Your task to perform on an android device: toggle show notifications on the lock screen Image 0: 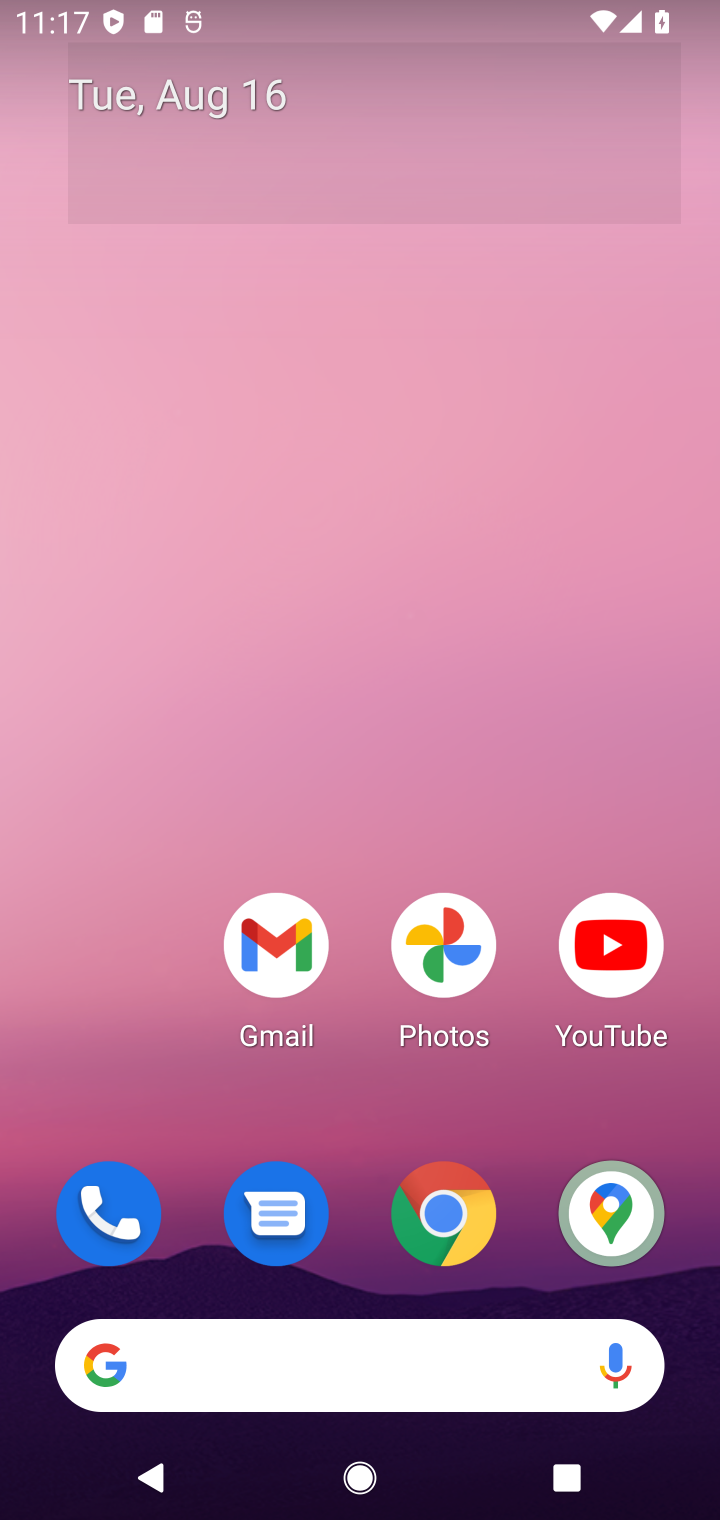
Step 0: drag from (386, 1134) to (424, 91)
Your task to perform on an android device: toggle show notifications on the lock screen Image 1: 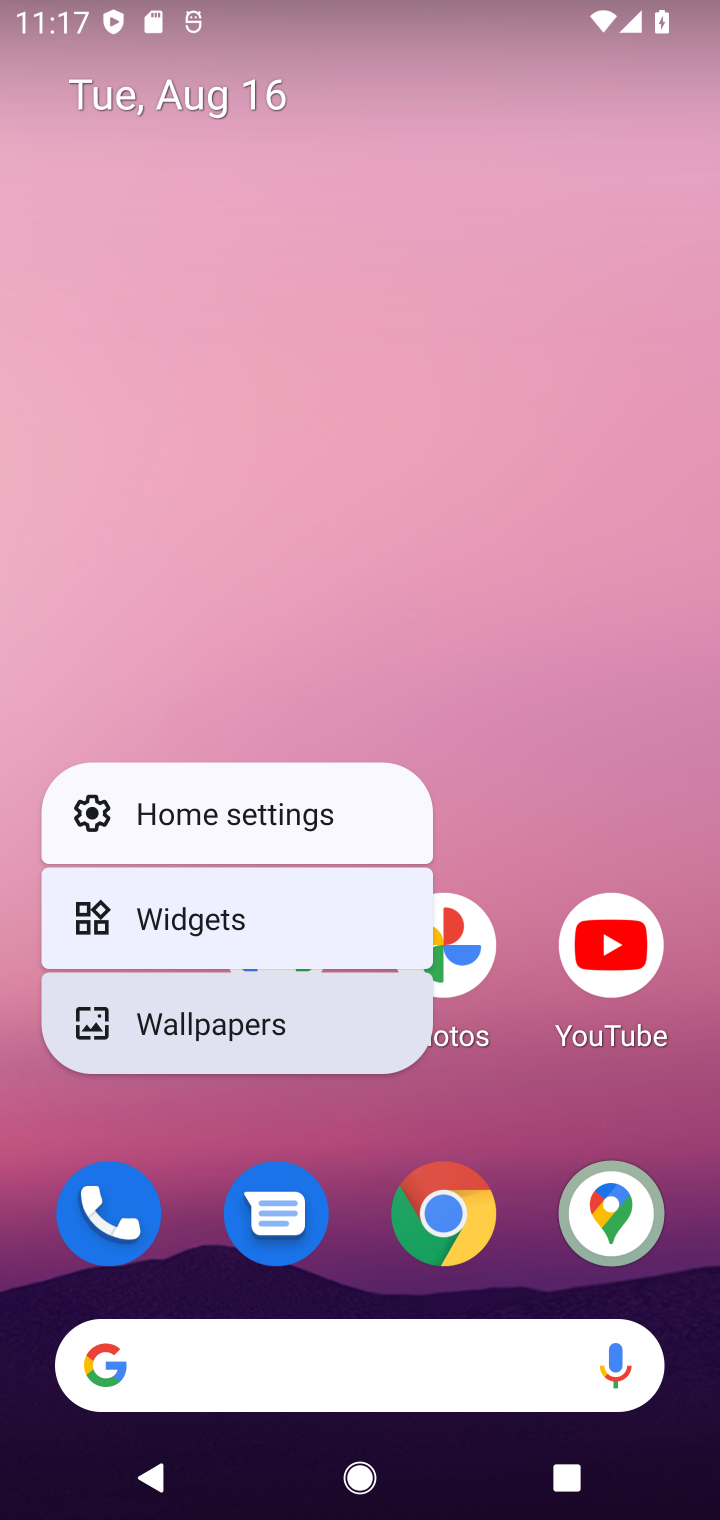
Step 1: click (715, 1032)
Your task to perform on an android device: toggle show notifications on the lock screen Image 2: 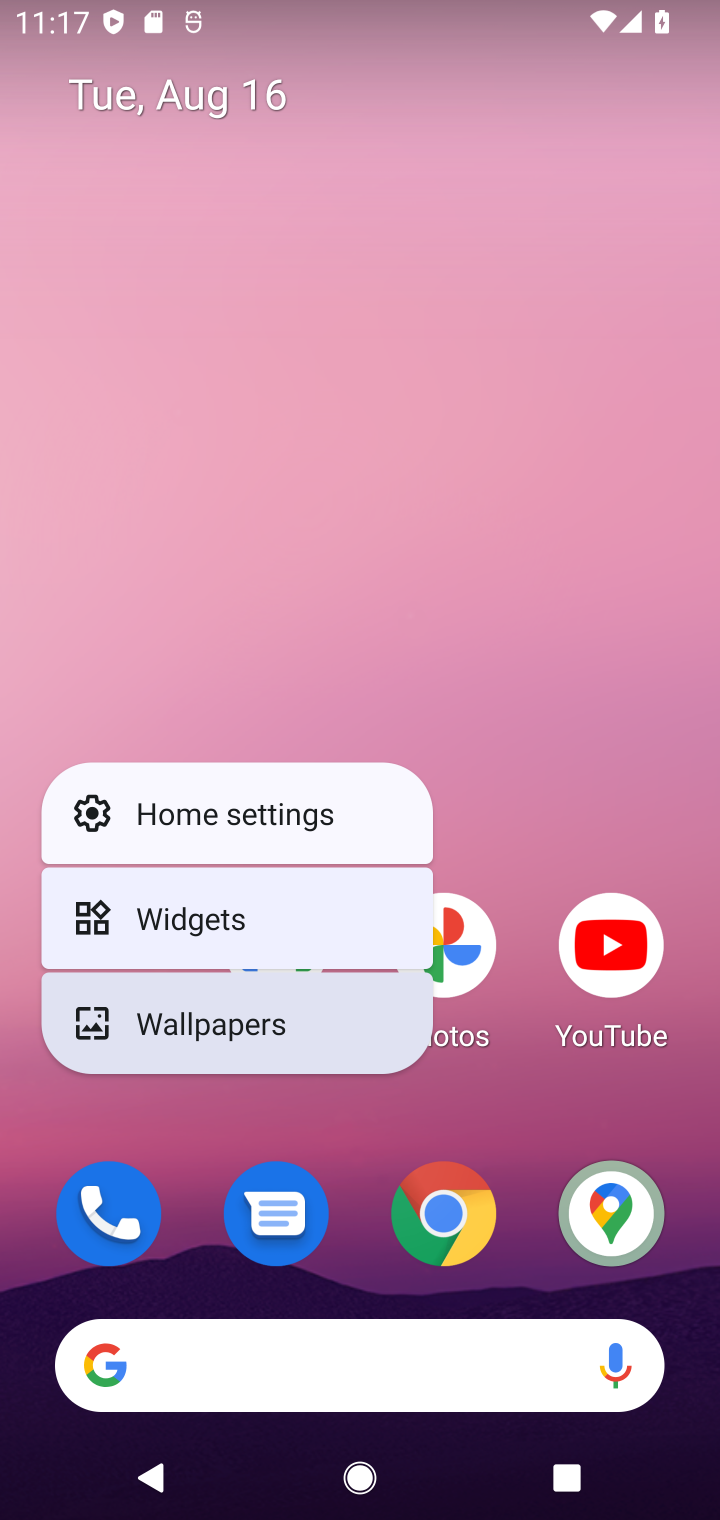
Step 2: click (670, 1080)
Your task to perform on an android device: toggle show notifications on the lock screen Image 3: 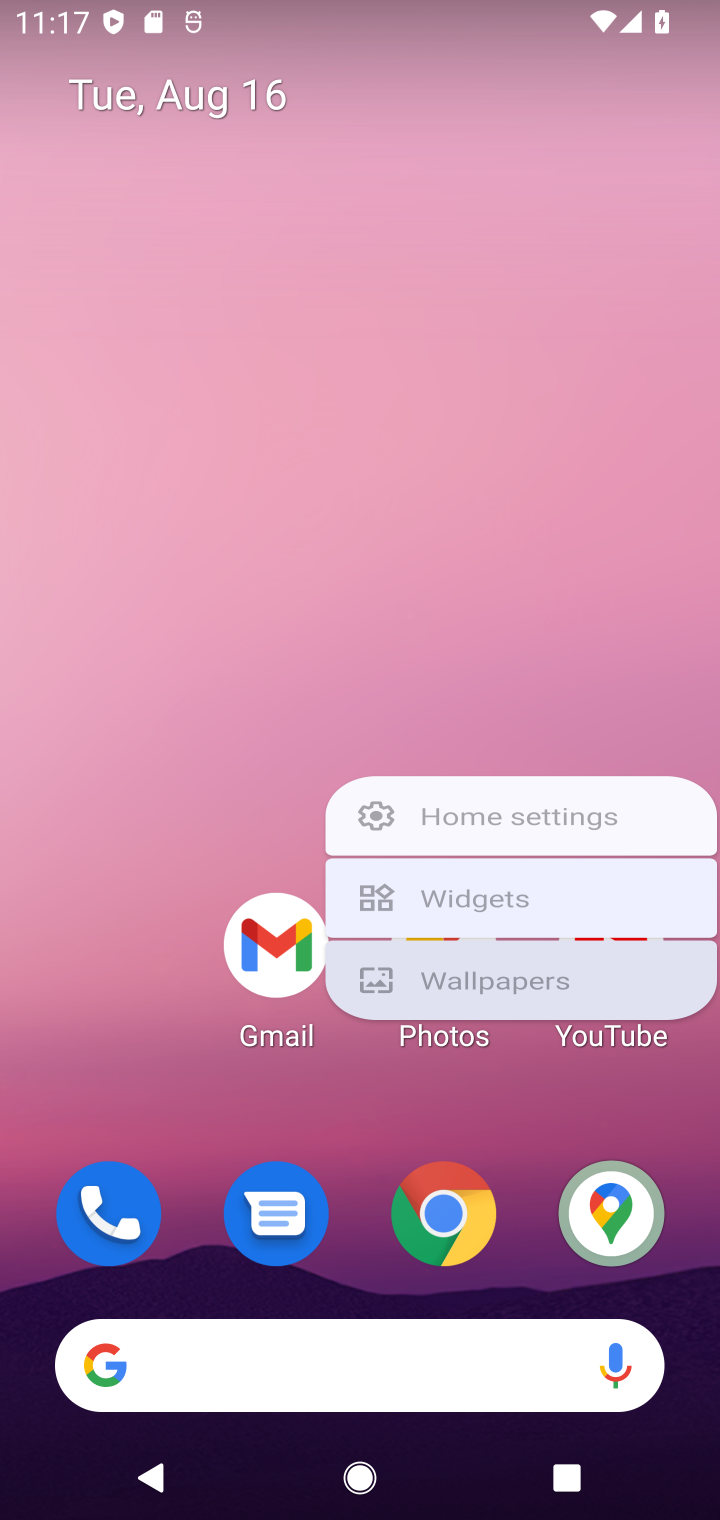
Step 3: click (603, 20)
Your task to perform on an android device: toggle show notifications on the lock screen Image 4: 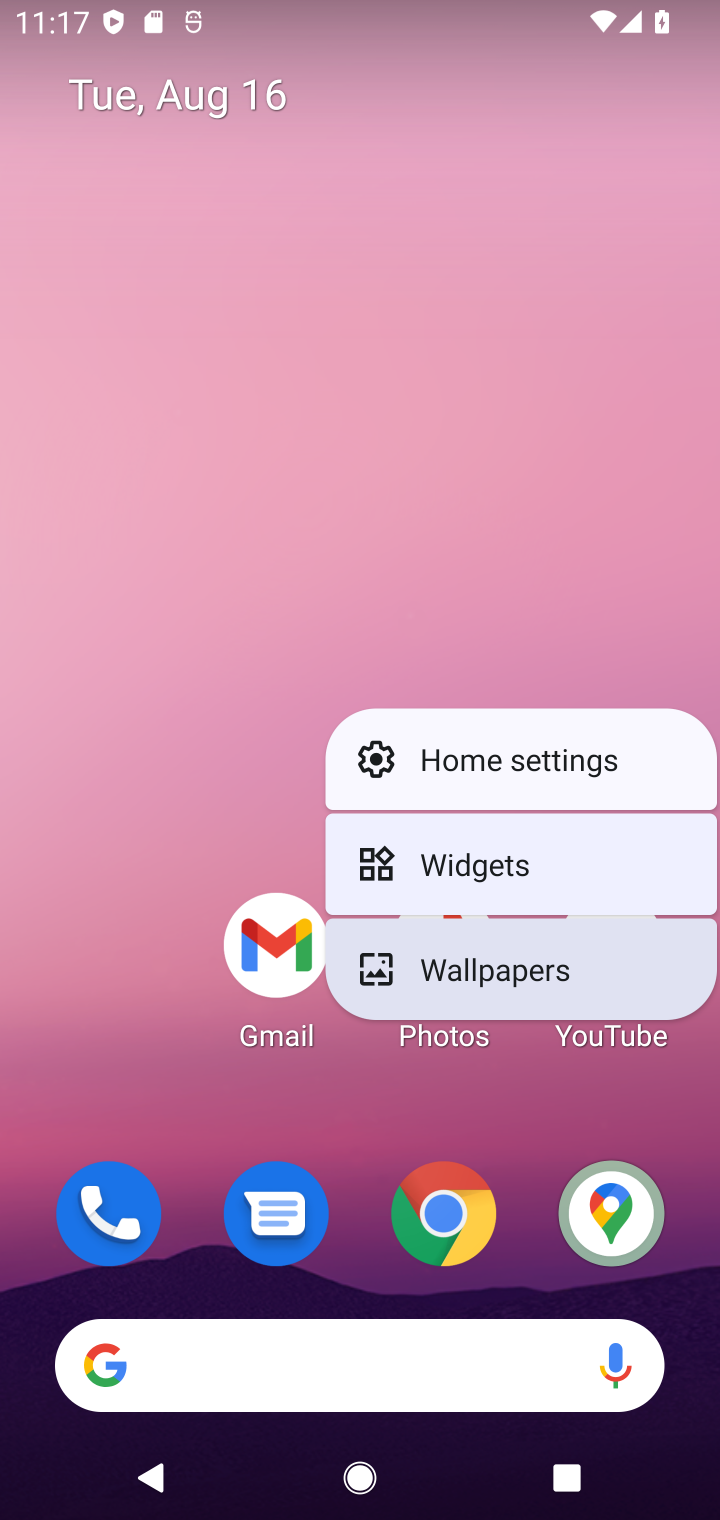
Step 4: click (348, 1090)
Your task to perform on an android device: toggle show notifications on the lock screen Image 5: 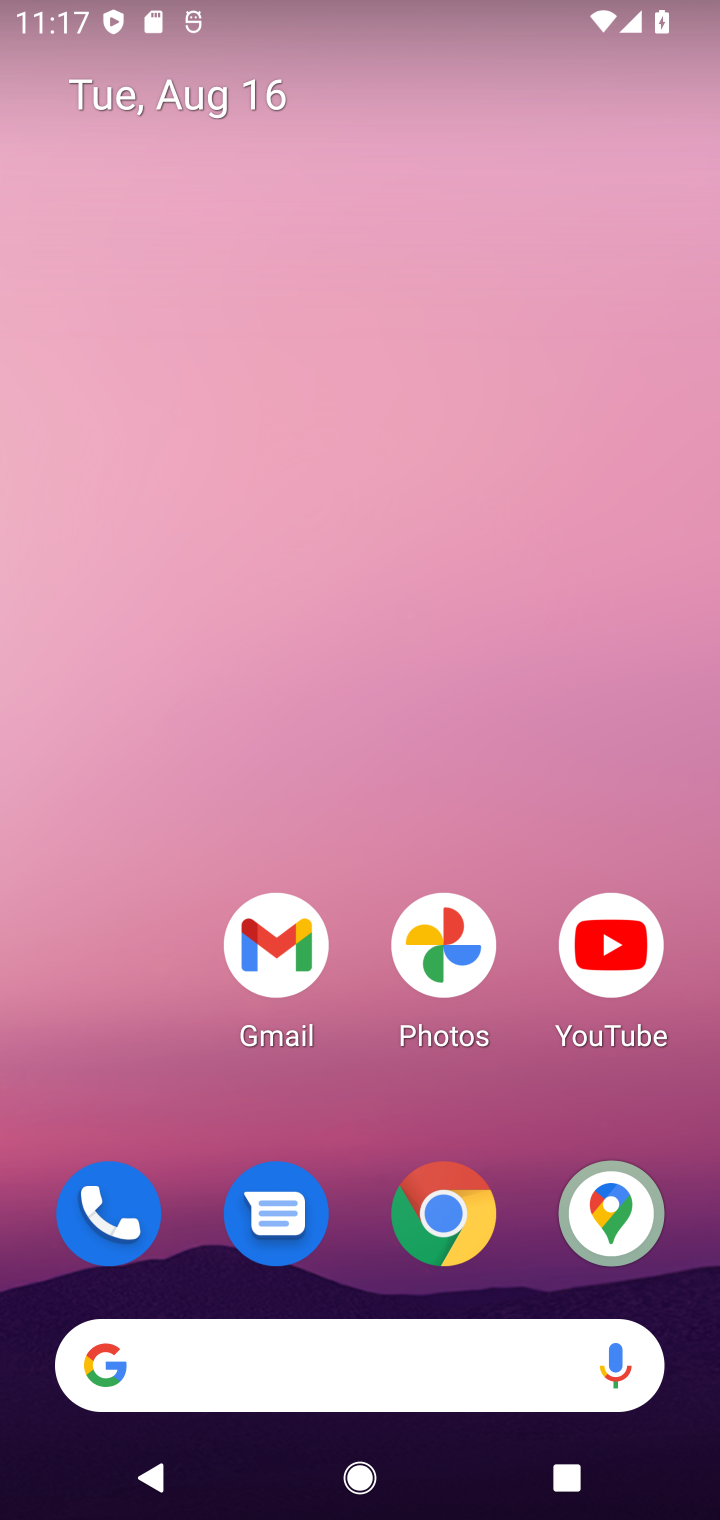
Step 5: click (363, 1079)
Your task to perform on an android device: toggle show notifications on the lock screen Image 6: 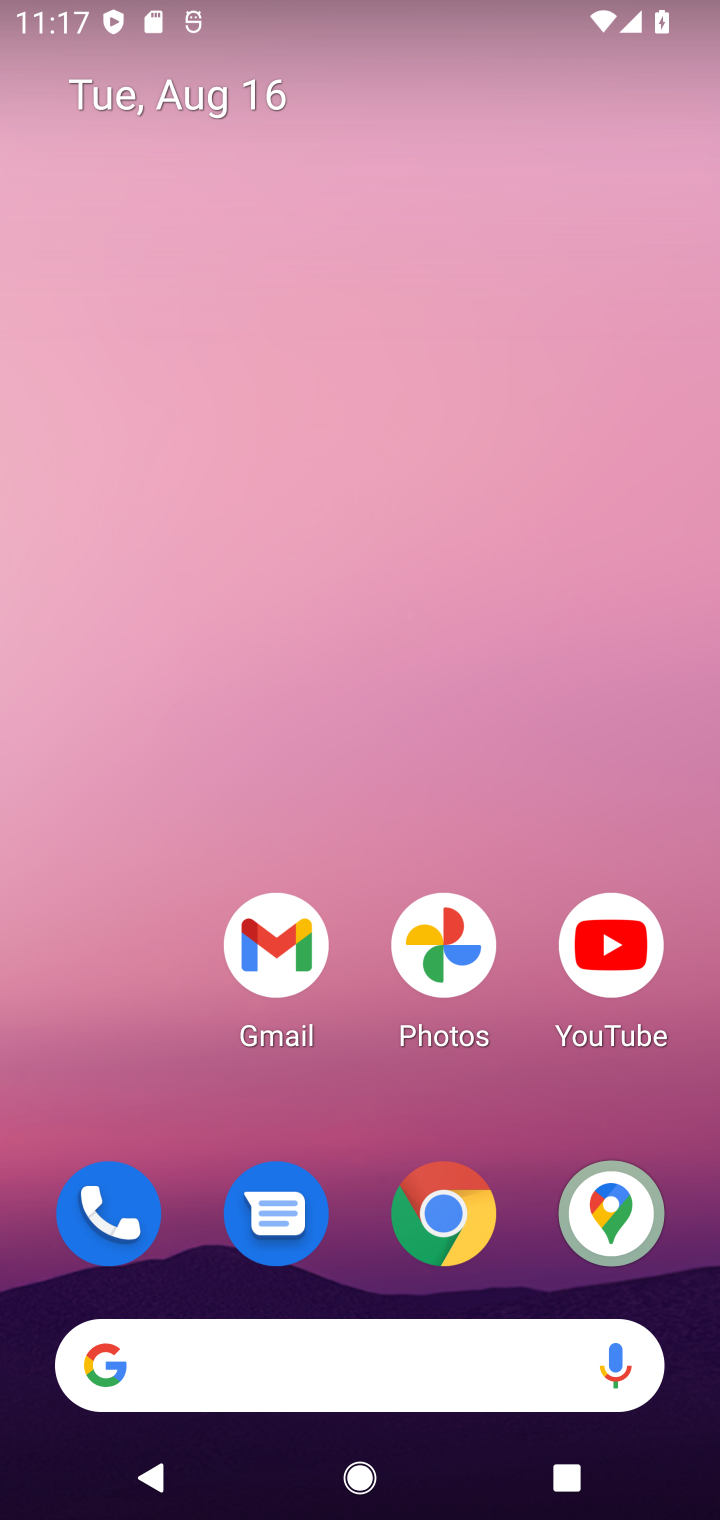
Step 6: drag from (348, 698) to (372, 187)
Your task to perform on an android device: toggle show notifications on the lock screen Image 7: 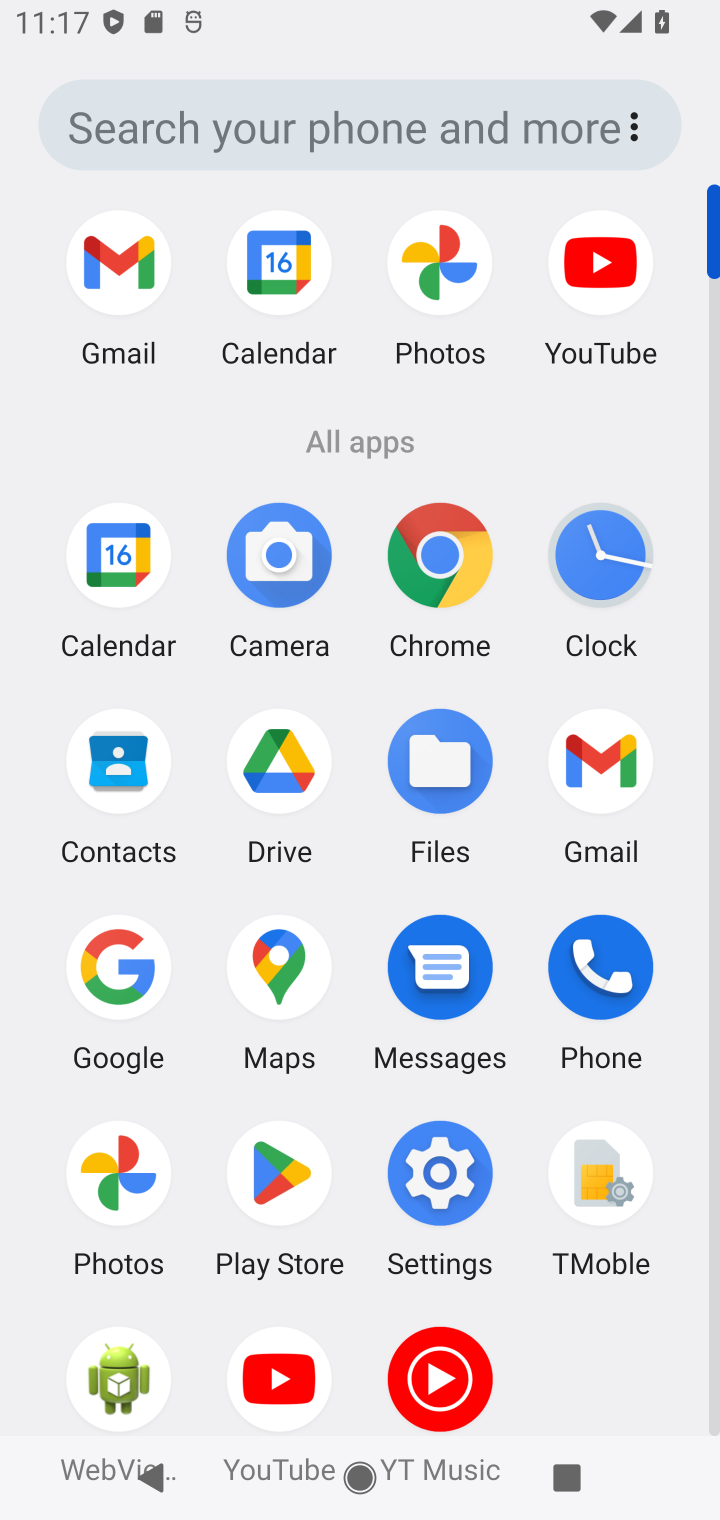
Step 7: click (443, 1182)
Your task to perform on an android device: toggle show notifications on the lock screen Image 8: 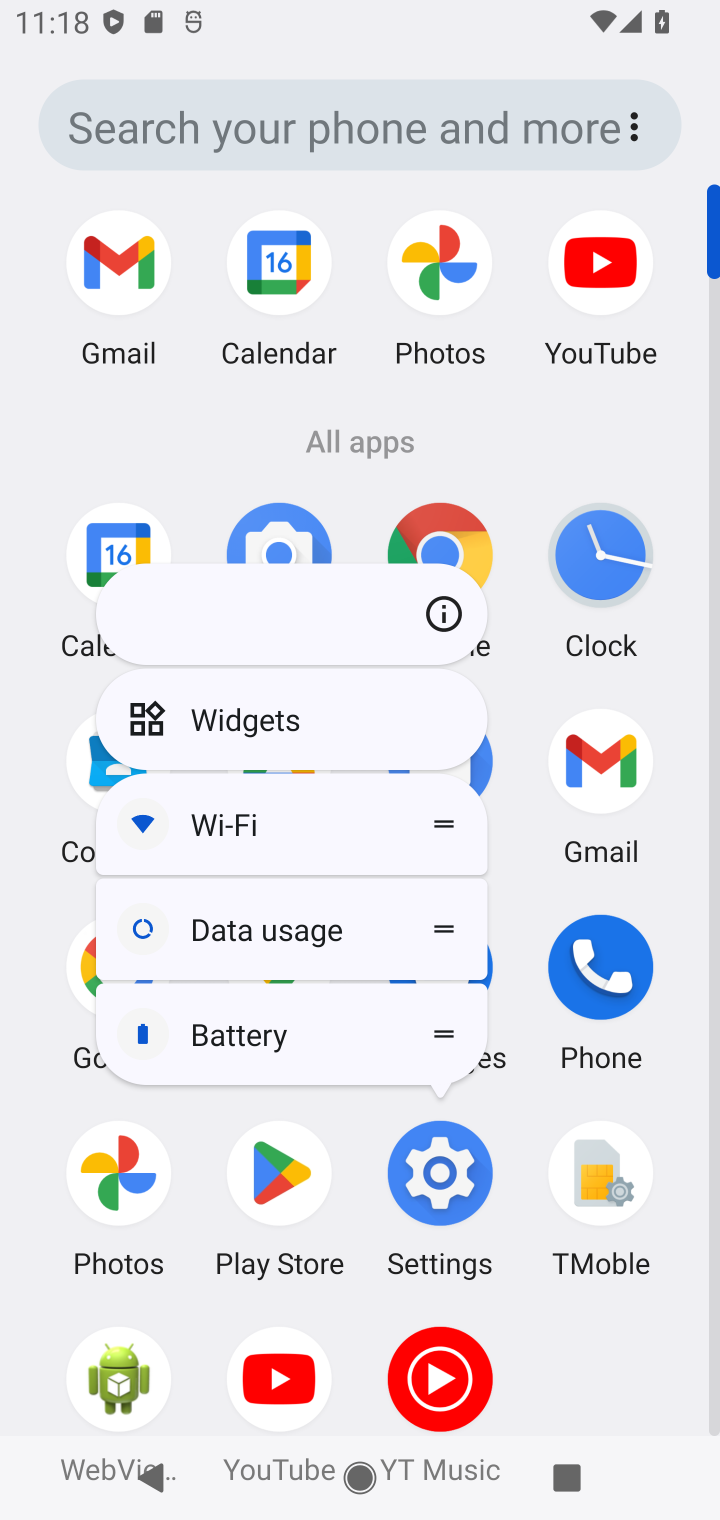
Step 8: click (433, 1180)
Your task to perform on an android device: toggle show notifications on the lock screen Image 9: 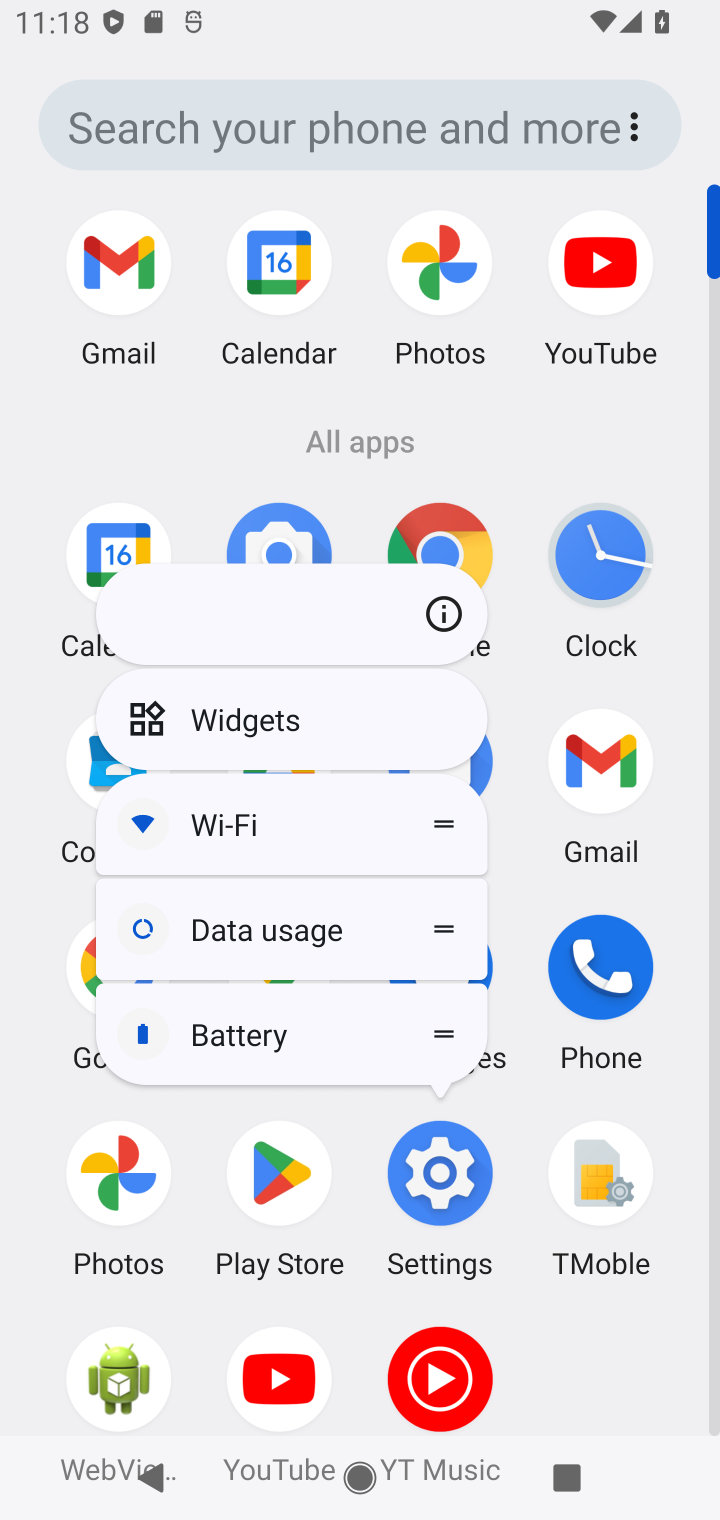
Step 9: click (431, 1180)
Your task to perform on an android device: toggle show notifications on the lock screen Image 10: 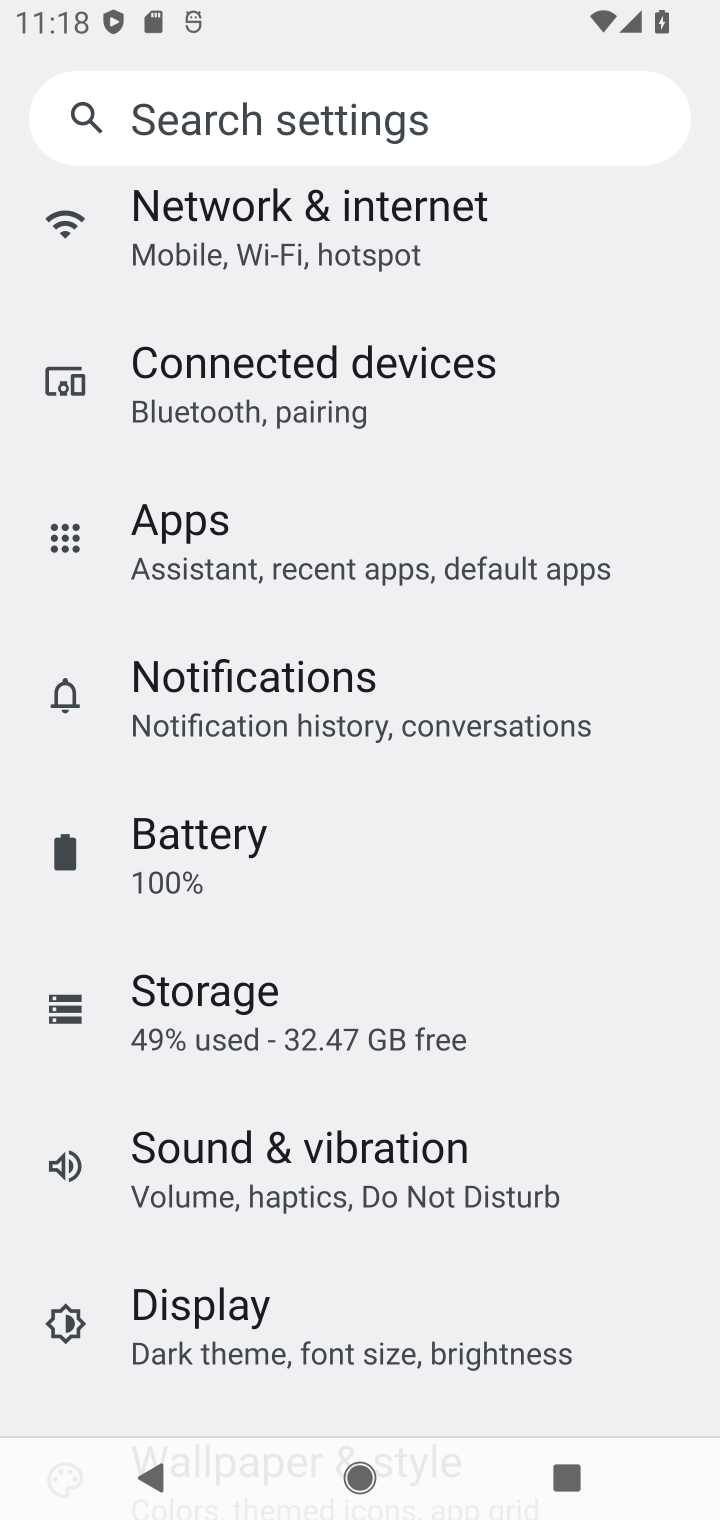
Step 10: click (279, 686)
Your task to perform on an android device: toggle show notifications on the lock screen Image 11: 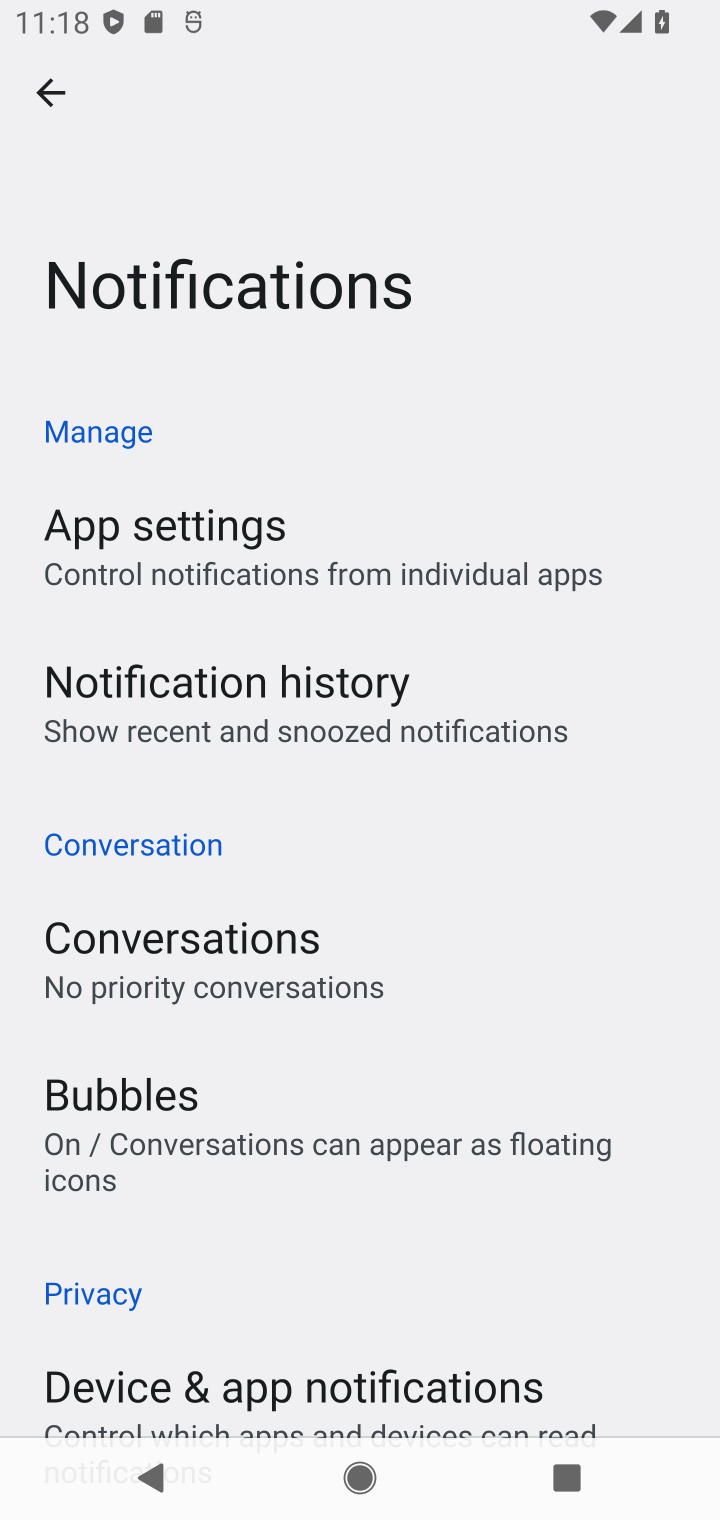
Step 11: click (394, 1400)
Your task to perform on an android device: toggle show notifications on the lock screen Image 12: 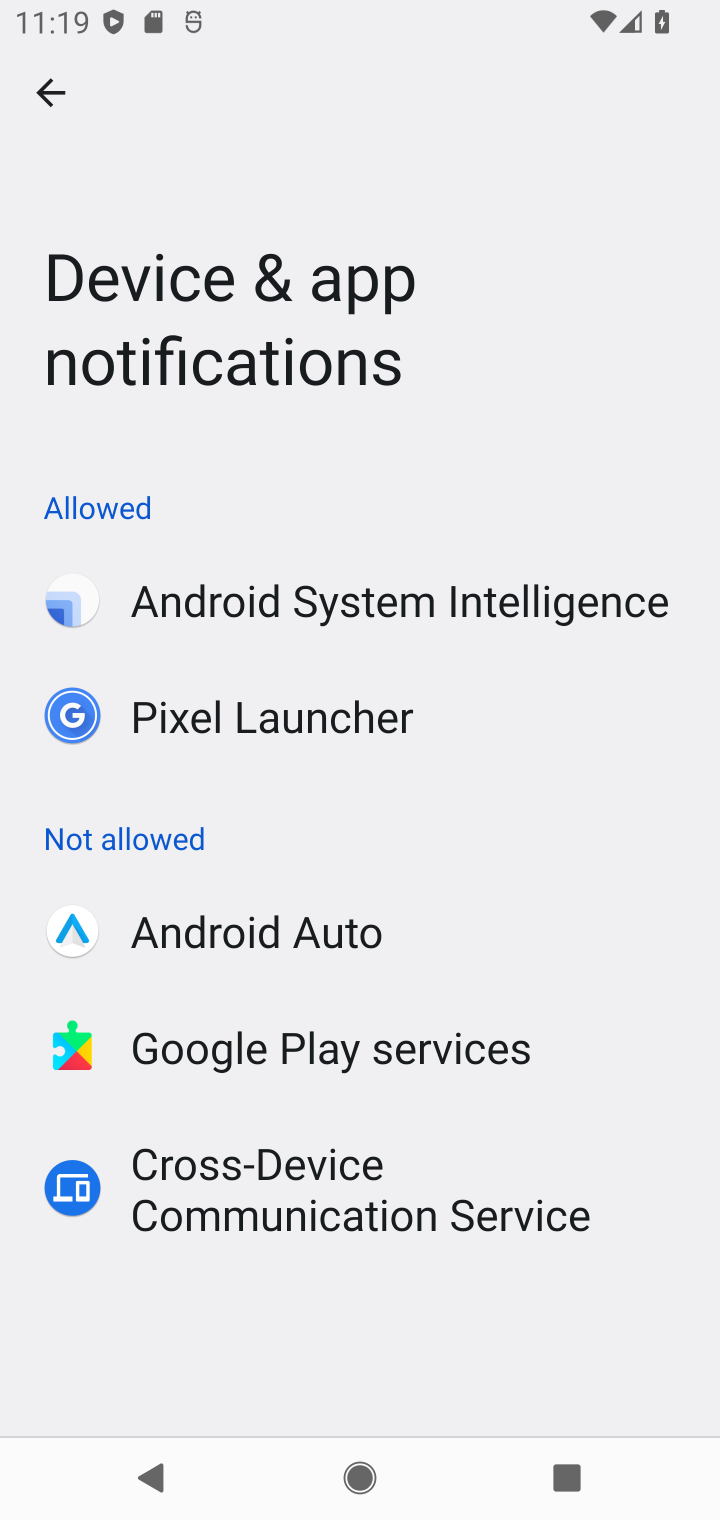
Step 12: click (57, 102)
Your task to perform on an android device: toggle show notifications on the lock screen Image 13: 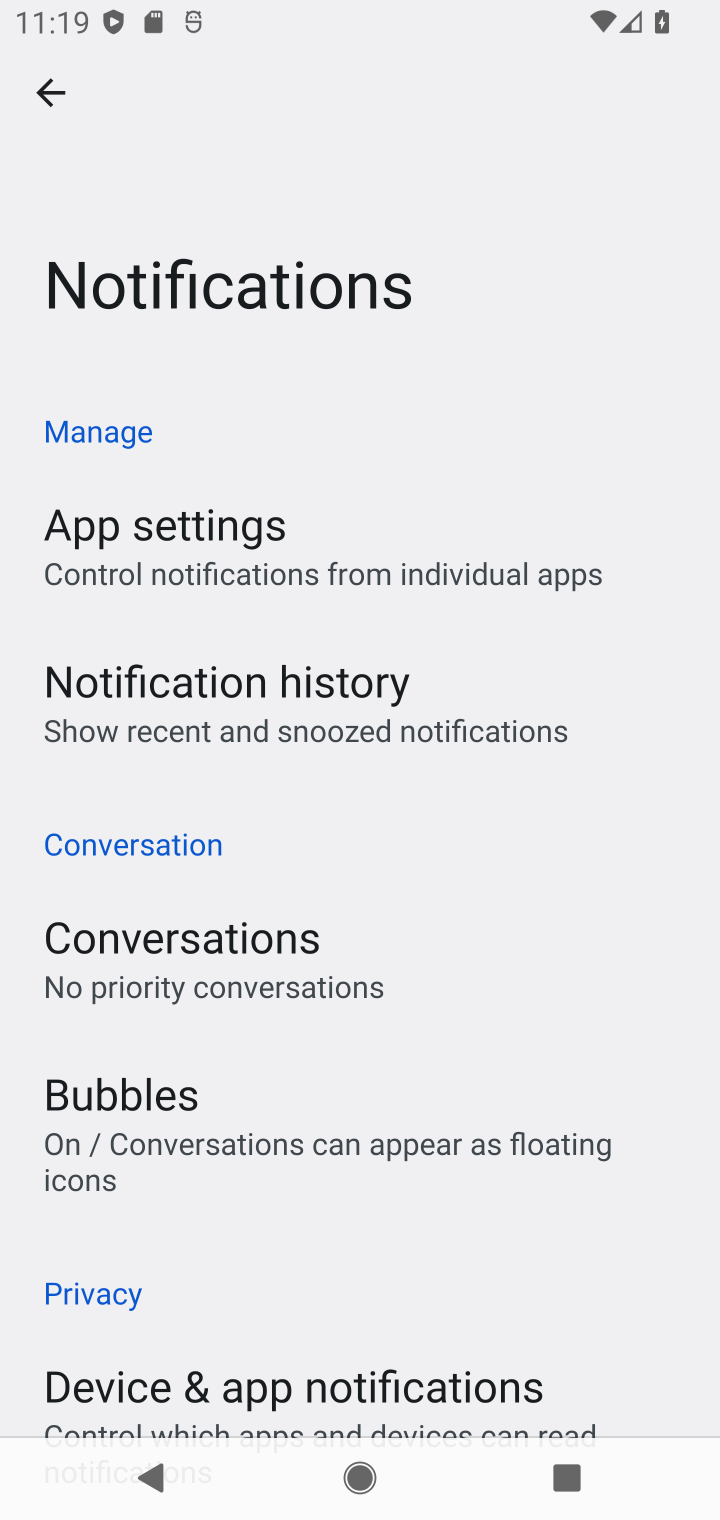
Step 13: drag from (313, 1261) to (437, 351)
Your task to perform on an android device: toggle show notifications on the lock screen Image 14: 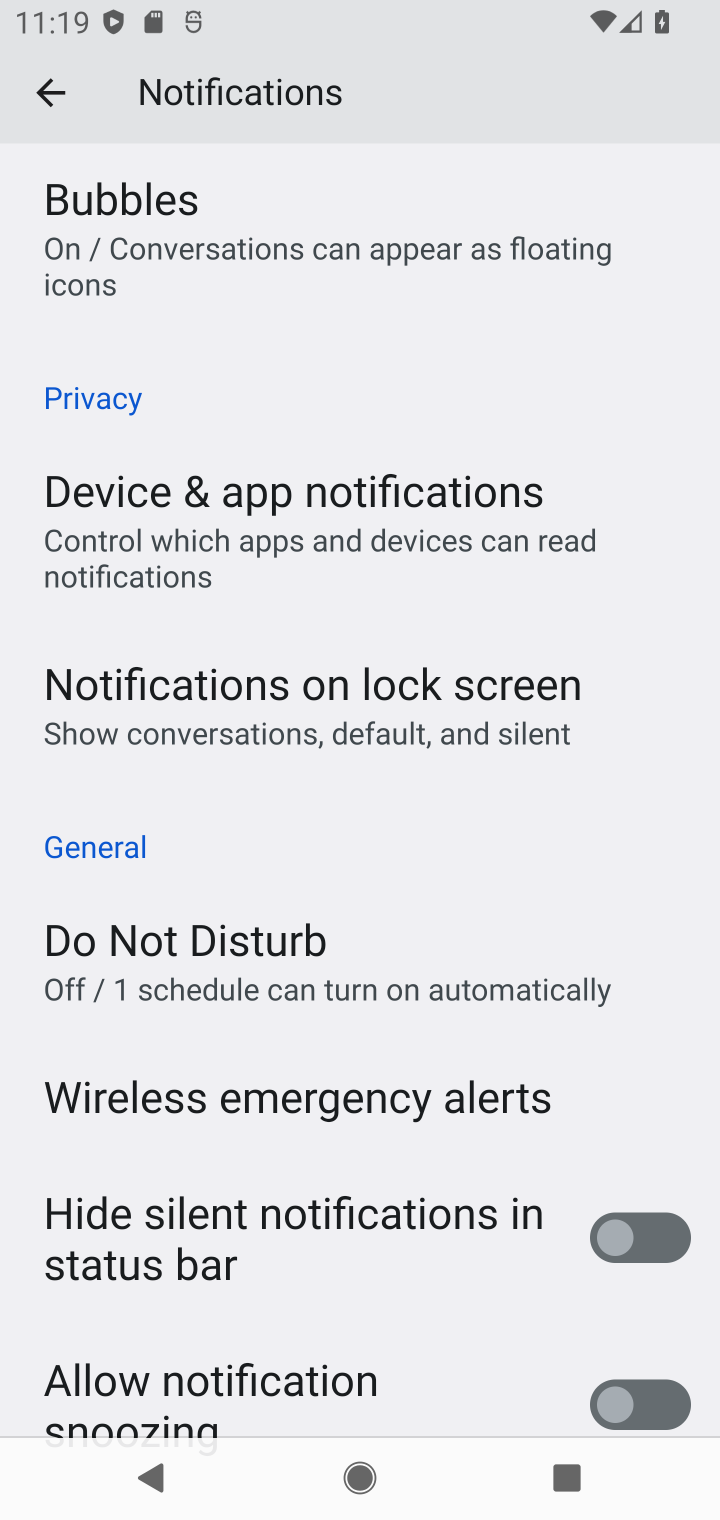
Step 14: click (363, 706)
Your task to perform on an android device: toggle show notifications on the lock screen Image 15: 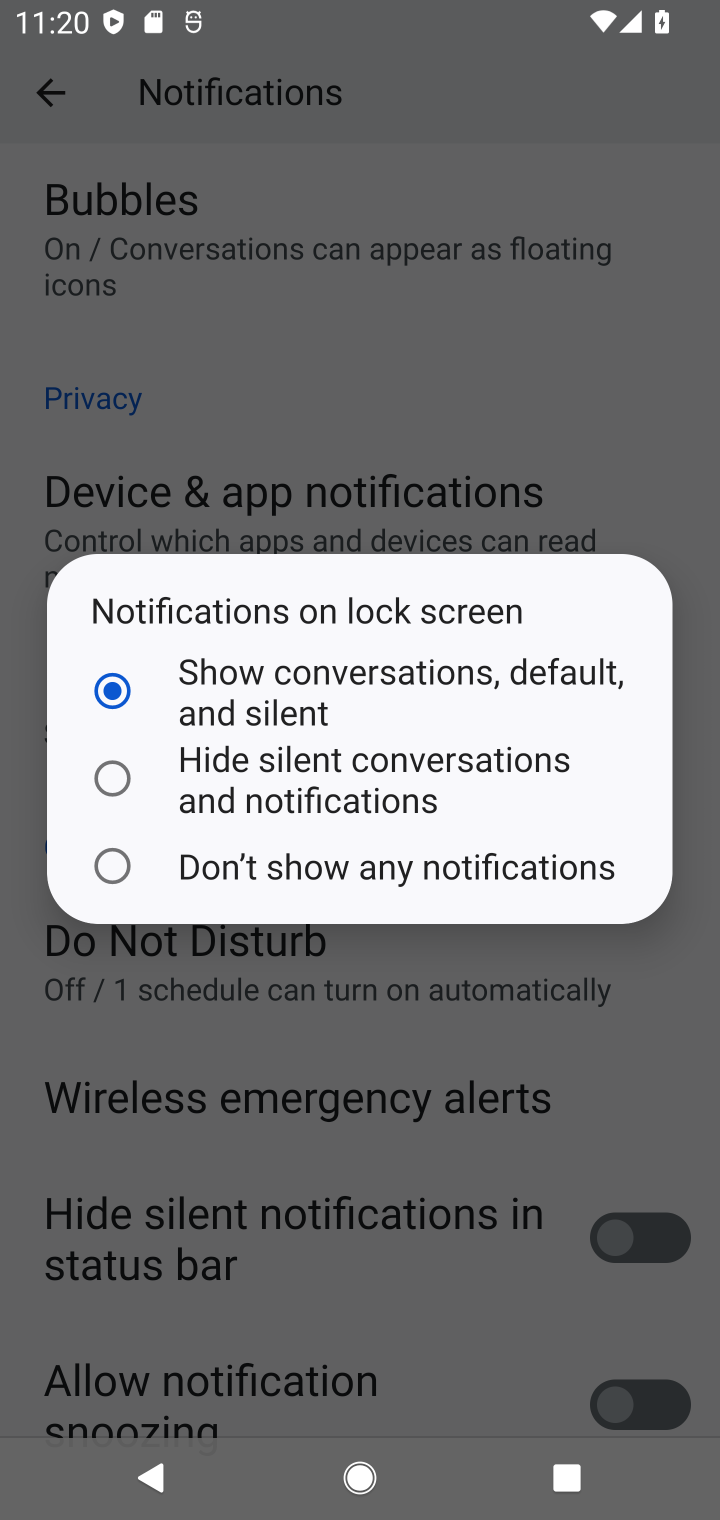
Step 15: click (295, 787)
Your task to perform on an android device: toggle show notifications on the lock screen Image 16: 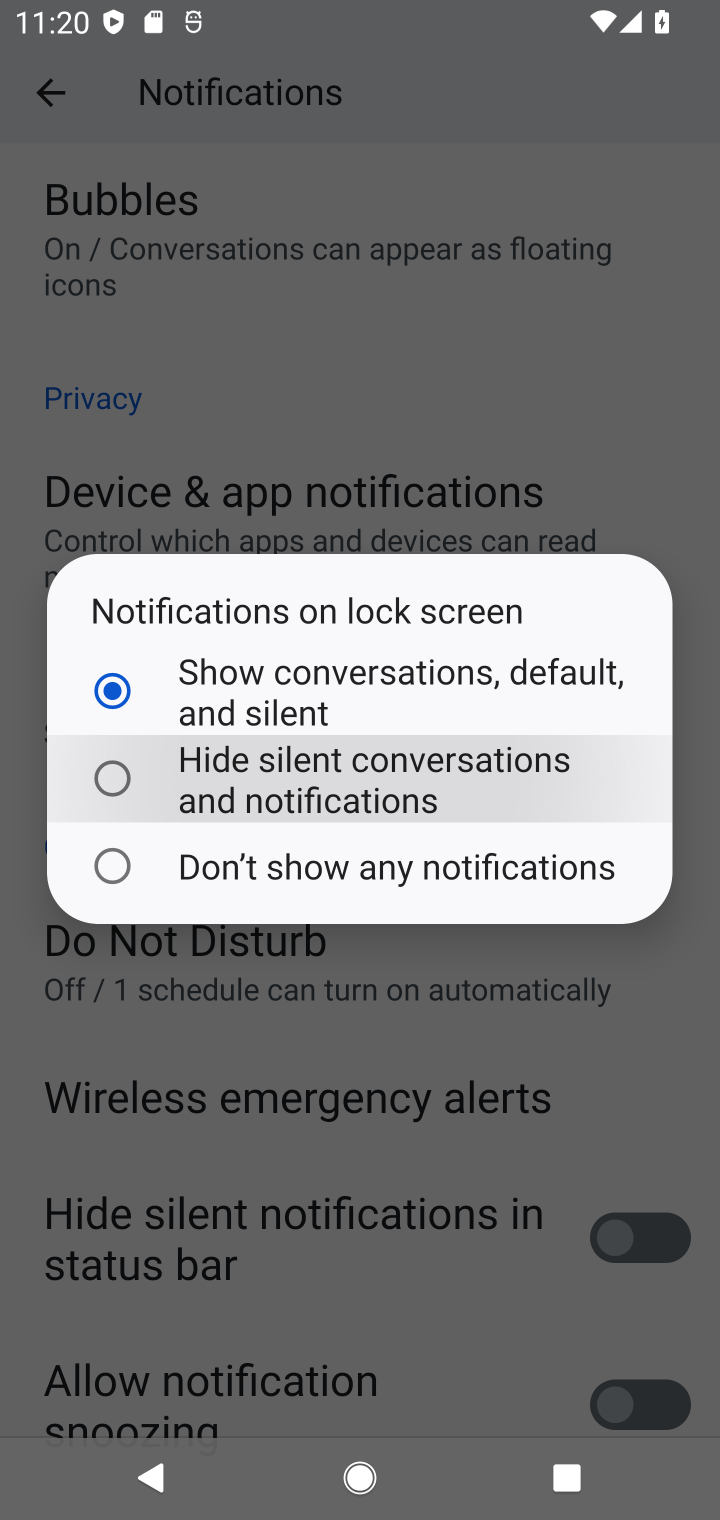
Step 16: task complete